Your task to perform on an android device: Open CNN.com Image 0: 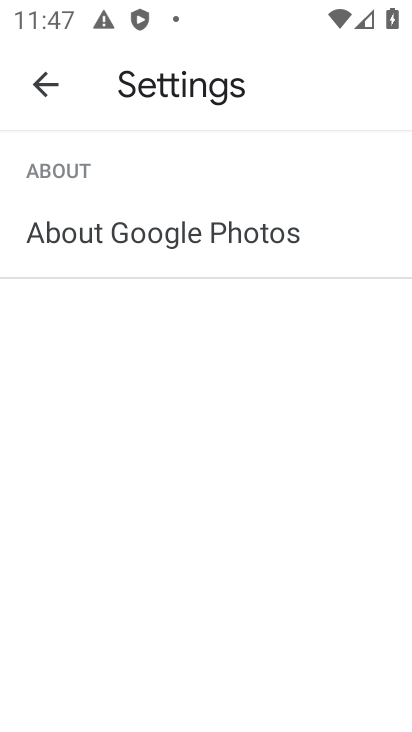
Step 0: press home button
Your task to perform on an android device: Open CNN.com Image 1: 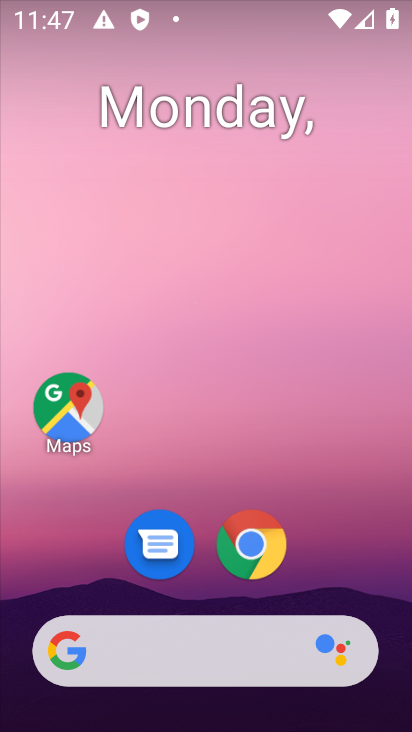
Step 1: drag from (313, 545) to (301, 0)
Your task to perform on an android device: Open CNN.com Image 2: 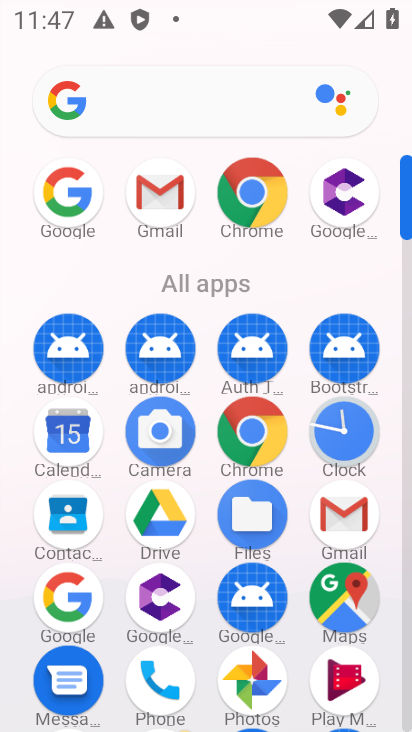
Step 2: click (256, 436)
Your task to perform on an android device: Open CNN.com Image 3: 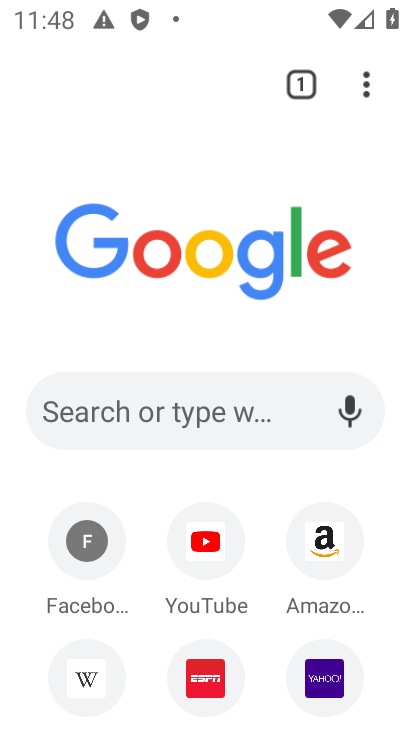
Step 3: click (210, 405)
Your task to perform on an android device: Open CNN.com Image 4: 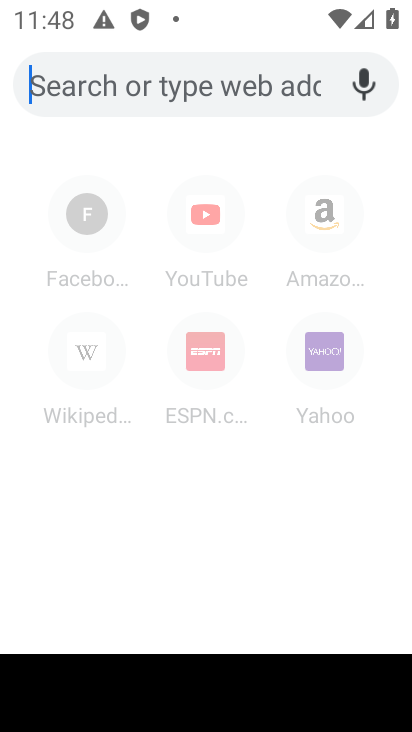
Step 4: type "cnn.com"
Your task to perform on an android device: Open CNN.com Image 5: 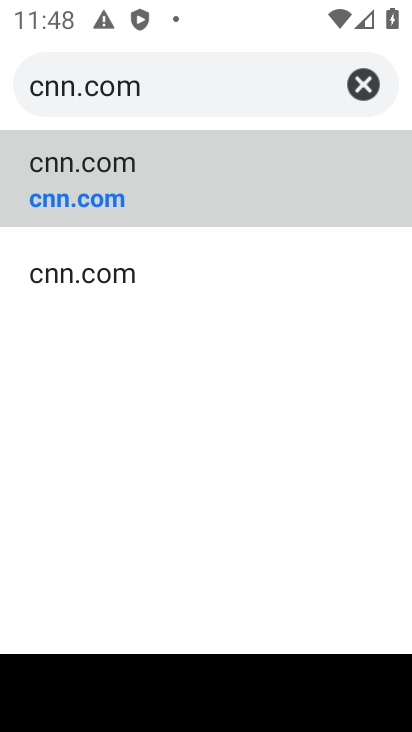
Step 5: click (102, 182)
Your task to perform on an android device: Open CNN.com Image 6: 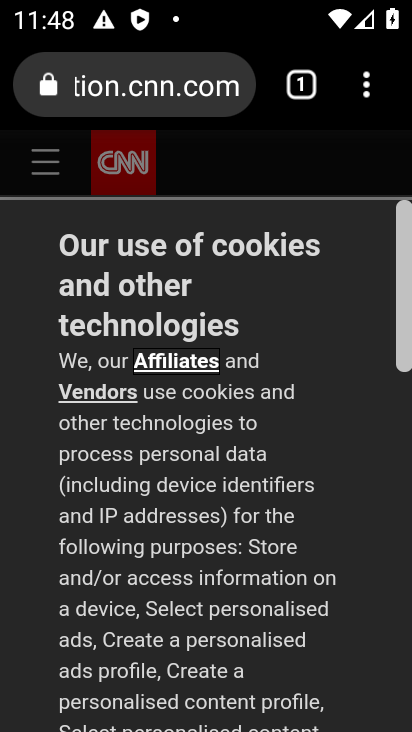
Step 6: task complete